Your task to perform on an android device: open the mobile data screen to see how much data has been used Image 0: 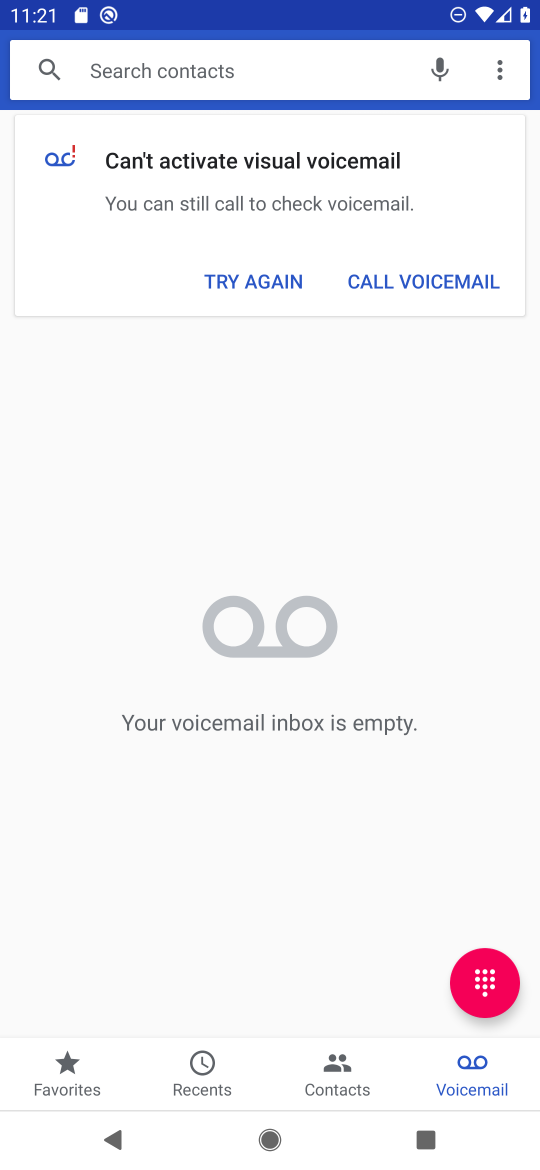
Step 0: press home button
Your task to perform on an android device: open the mobile data screen to see how much data has been used Image 1: 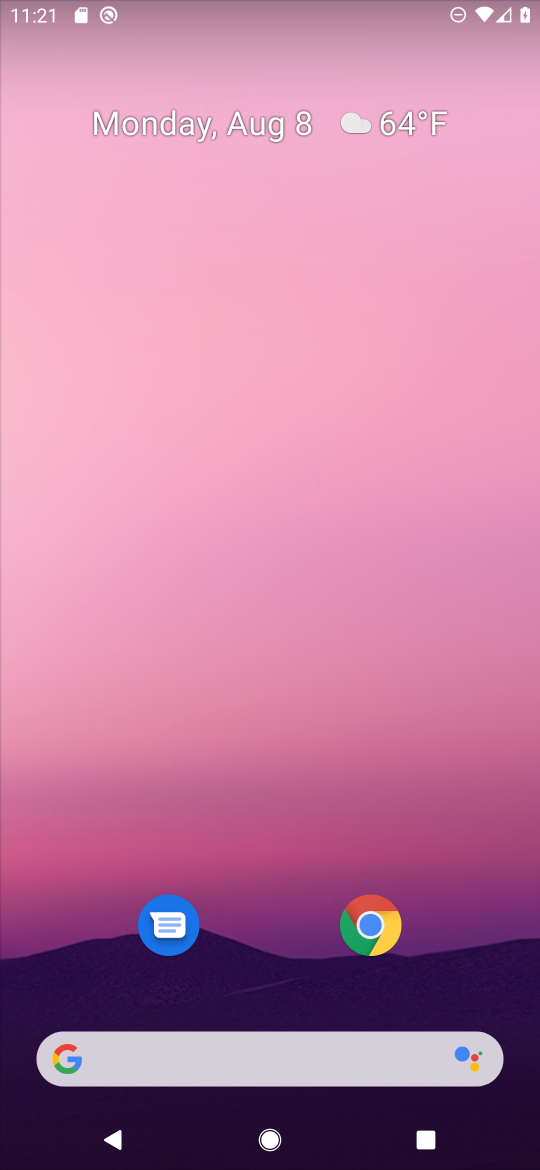
Step 1: drag from (296, 929) to (314, 170)
Your task to perform on an android device: open the mobile data screen to see how much data has been used Image 2: 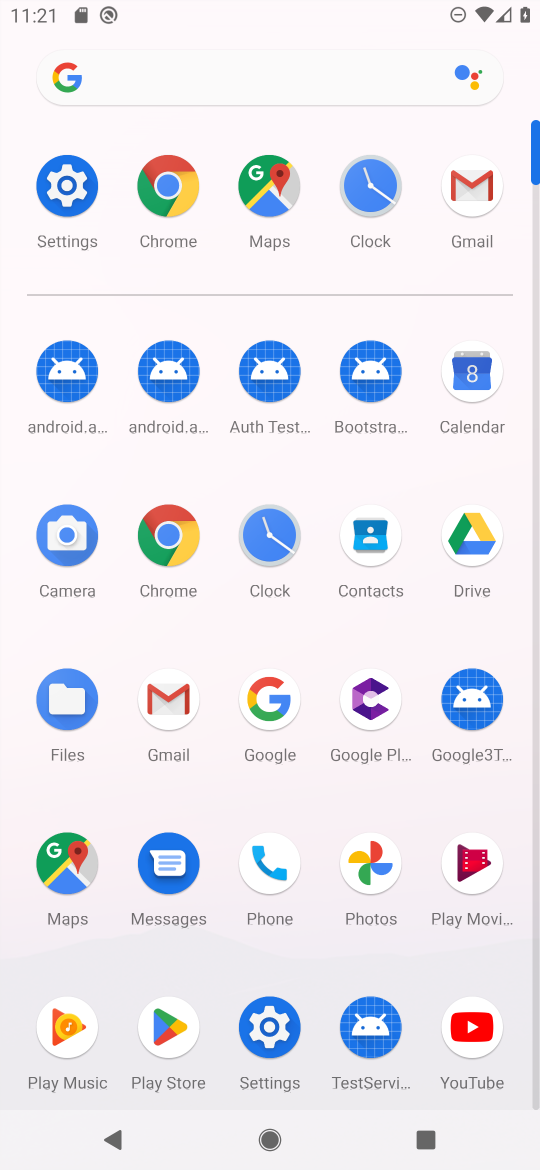
Step 2: click (70, 194)
Your task to perform on an android device: open the mobile data screen to see how much data has been used Image 3: 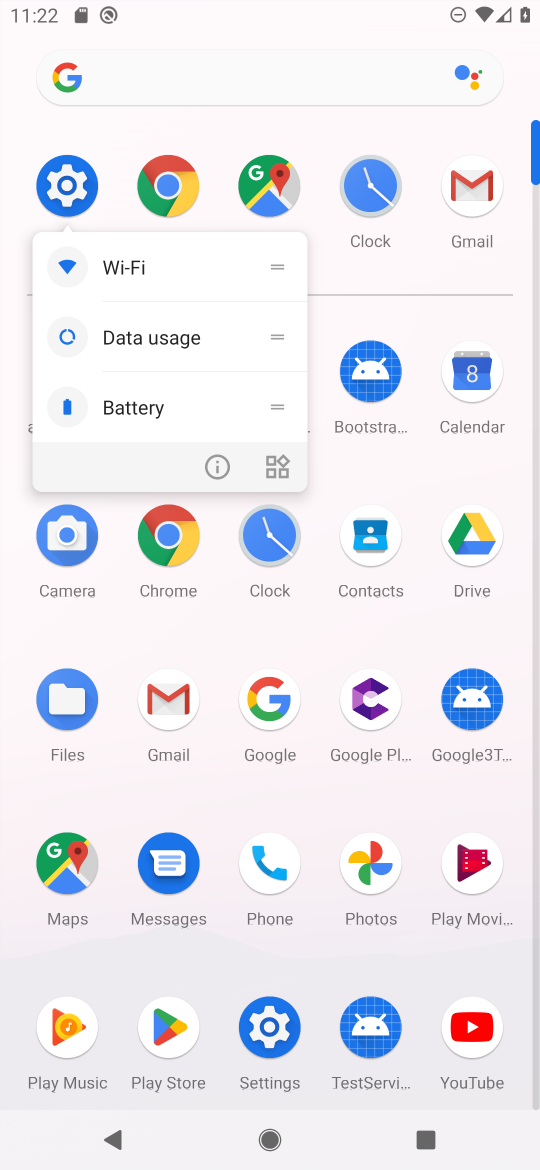
Step 3: click (80, 185)
Your task to perform on an android device: open the mobile data screen to see how much data has been used Image 4: 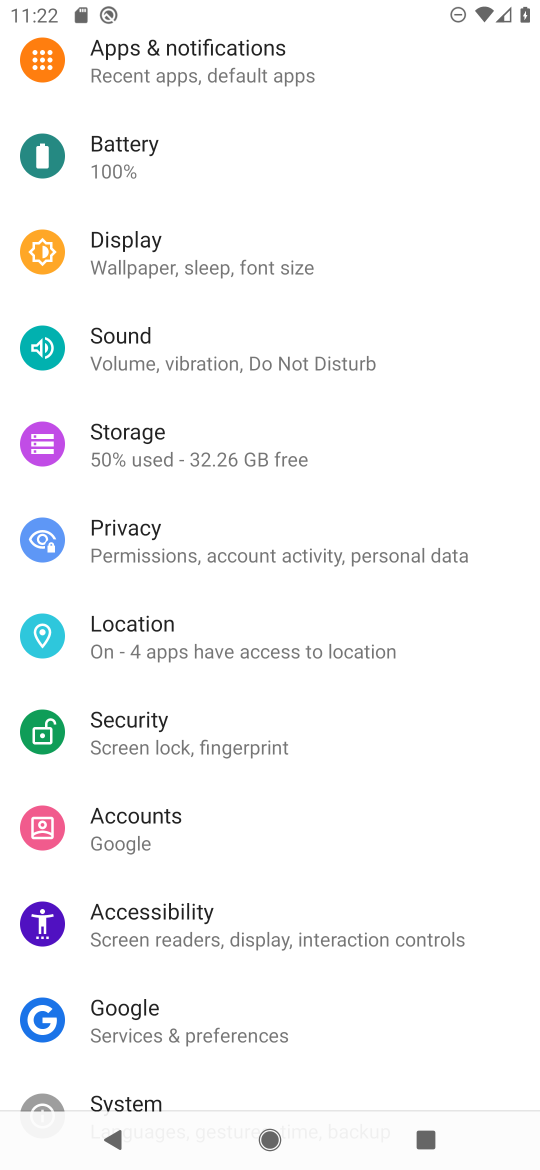
Step 4: drag from (234, 128) to (226, 717)
Your task to perform on an android device: open the mobile data screen to see how much data has been used Image 5: 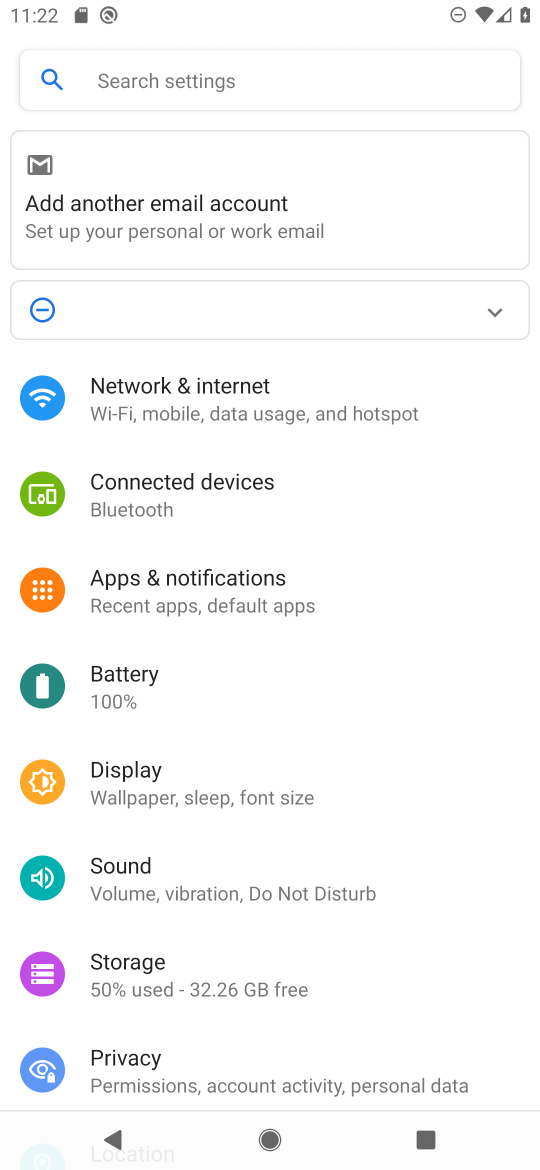
Step 5: click (189, 409)
Your task to perform on an android device: open the mobile data screen to see how much data has been used Image 6: 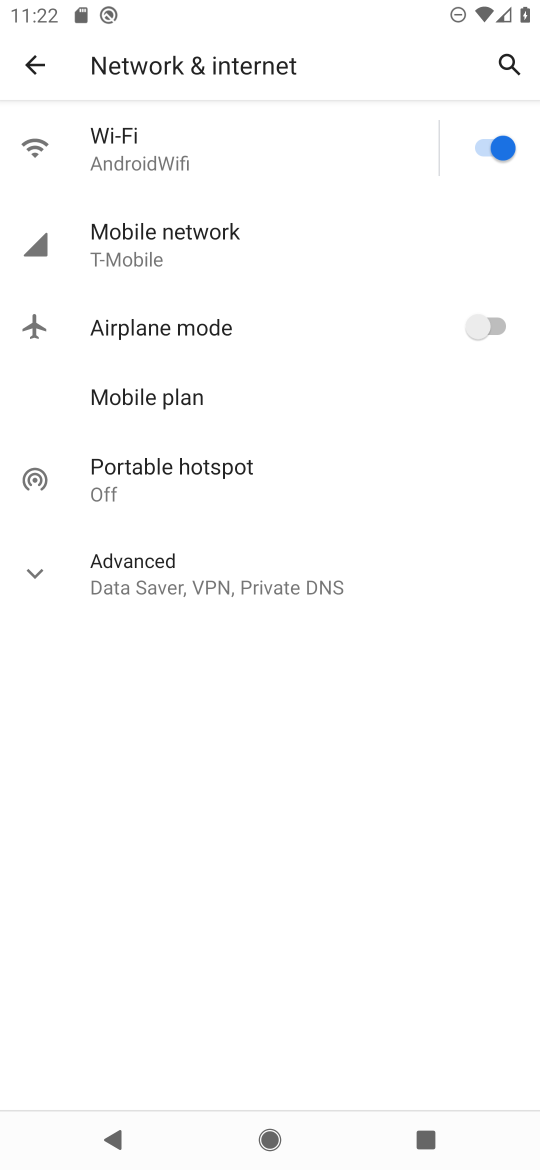
Step 6: click (176, 262)
Your task to perform on an android device: open the mobile data screen to see how much data has been used Image 7: 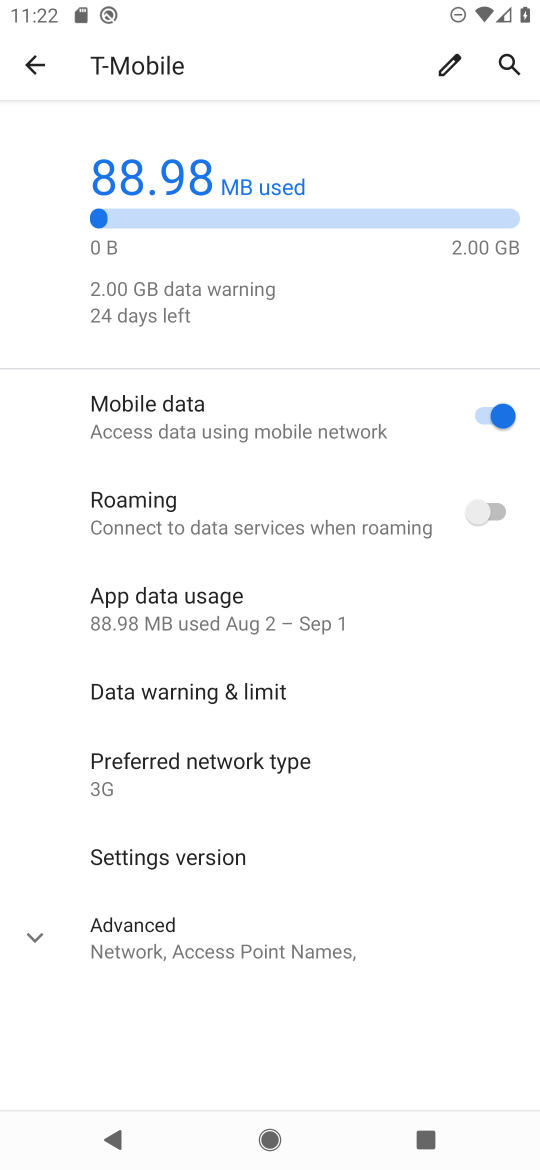
Step 7: task complete